Your task to perform on an android device: open a bookmark in the chrome app Image 0: 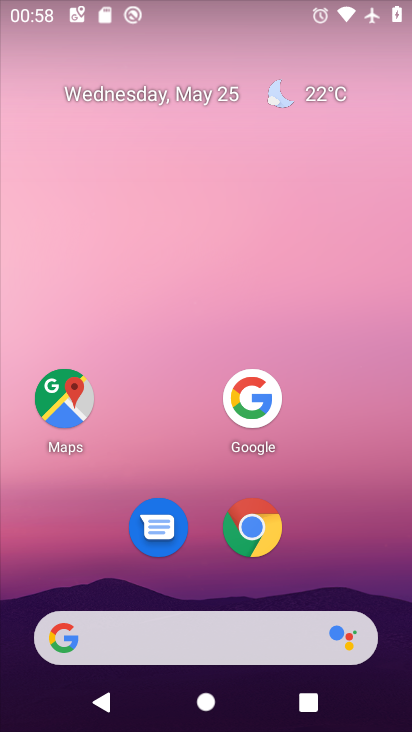
Step 0: press home button
Your task to perform on an android device: open a bookmark in the chrome app Image 1: 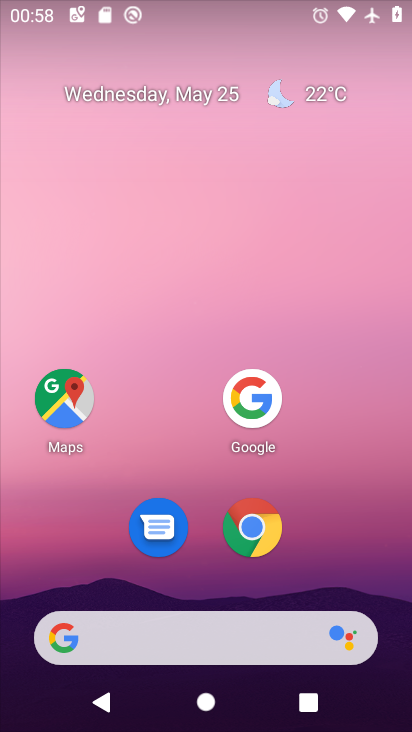
Step 1: click (245, 543)
Your task to perform on an android device: open a bookmark in the chrome app Image 2: 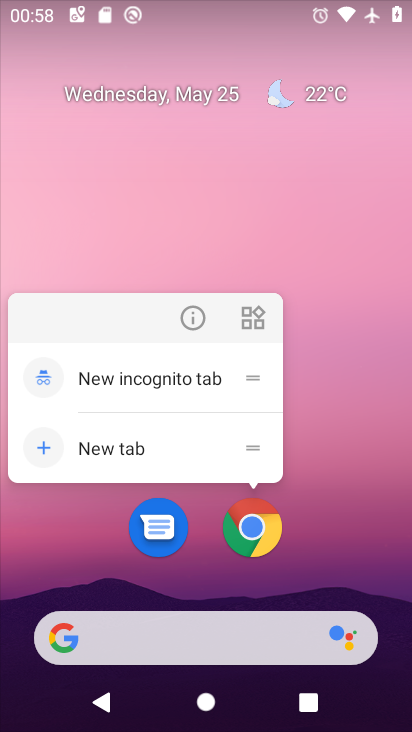
Step 2: click (266, 538)
Your task to perform on an android device: open a bookmark in the chrome app Image 3: 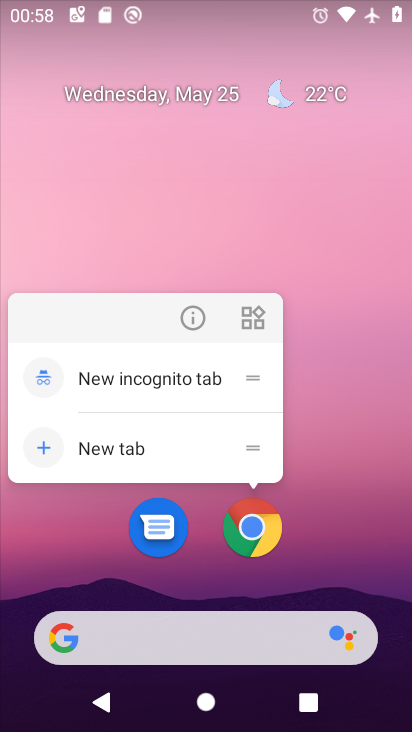
Step 3: click (251, 536)
Your task to perform on an android device: open a bookmark in the chrome app Image 4: 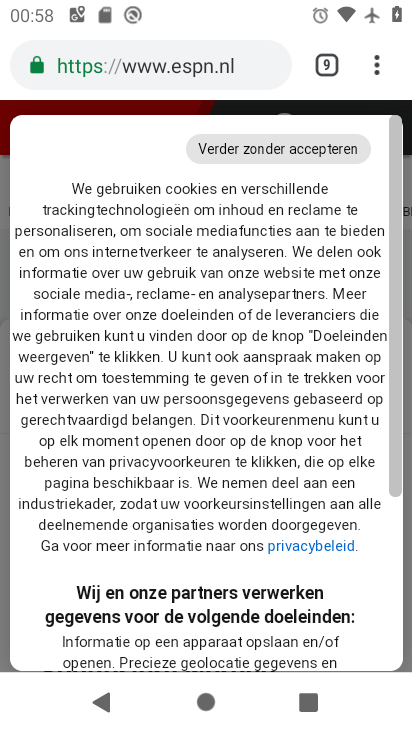
Step 4: task complete